Your task to perform on an android device: Go to ESPN.com Image 0: 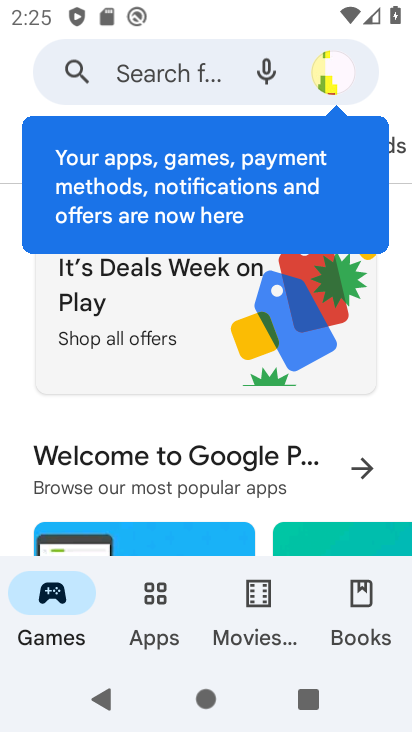
Step 0: press home button
Your task to perform on an android device: Go to ESPN.com Image 1: 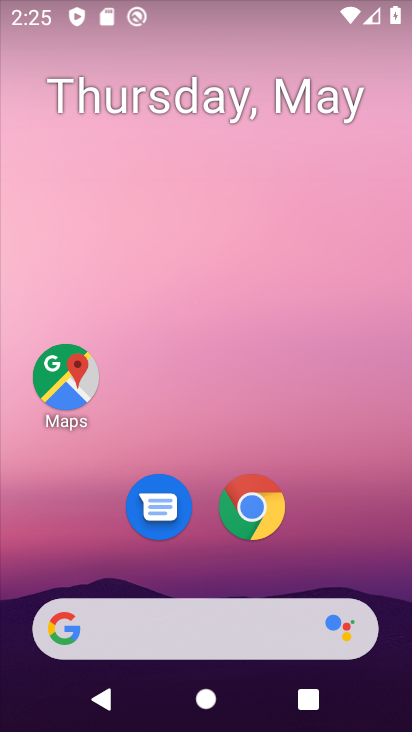
Step 1: click (247, 502)
Your task to perform on an android device: Go to ESPN.com Image 2: 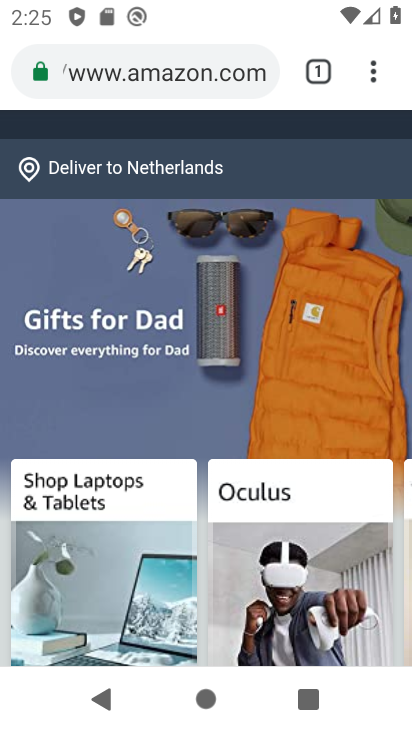
Step 2: drag from (227, 197) to (226, 471)
Your task to perform on an android device: Go to ESPN.com Image 3: 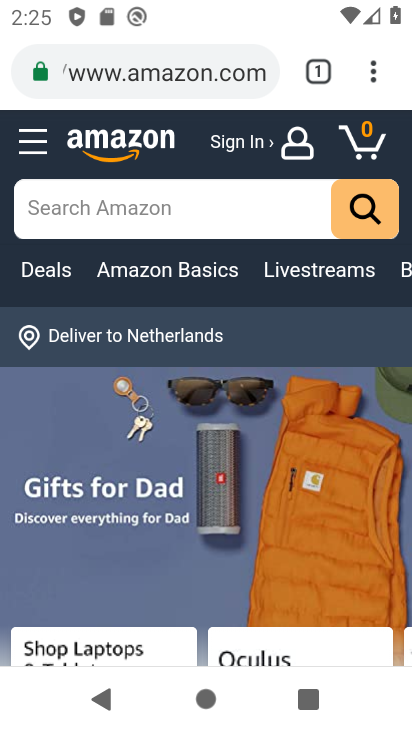
Step 3: click (143, 66)
Your task to perform on an android device: Go to ESPN.com Image 4: 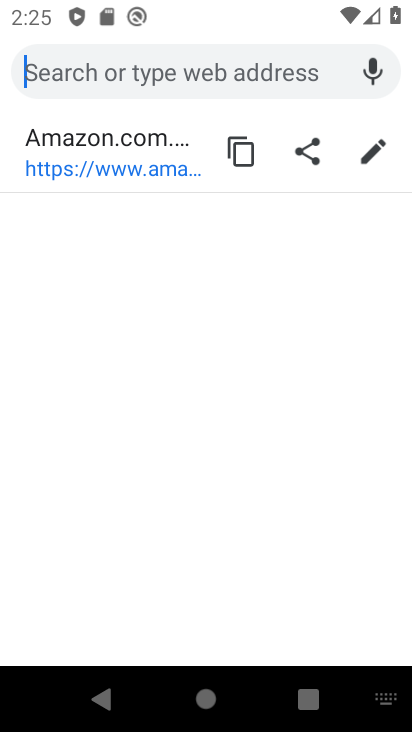
Step 4: type "ESPN.com"
Your task to perform on an android device: Go to ESPN.com Image 5: 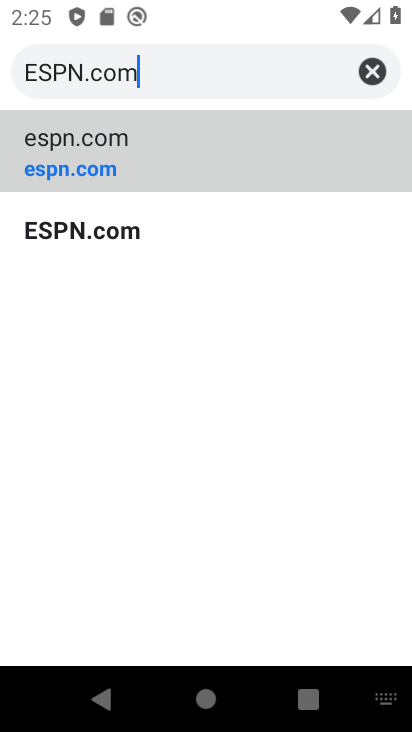
Step 5: click (74, 240)
Your task to perform on an android device: Go to ESPN.com Image 6: 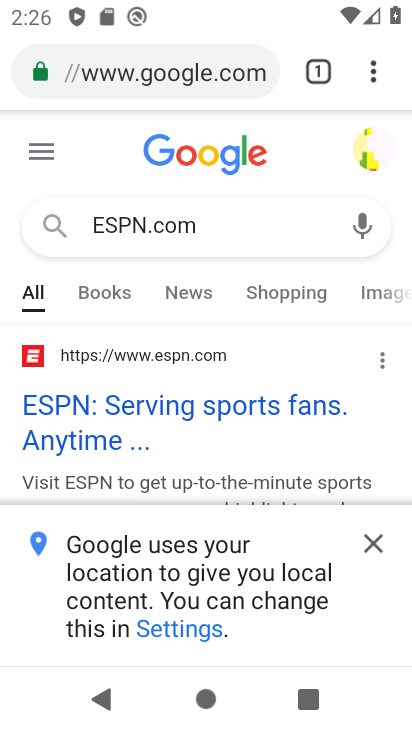
Step 6: task complete